Your task to perform on an android device: Open Maps and search for coffee Image 0: 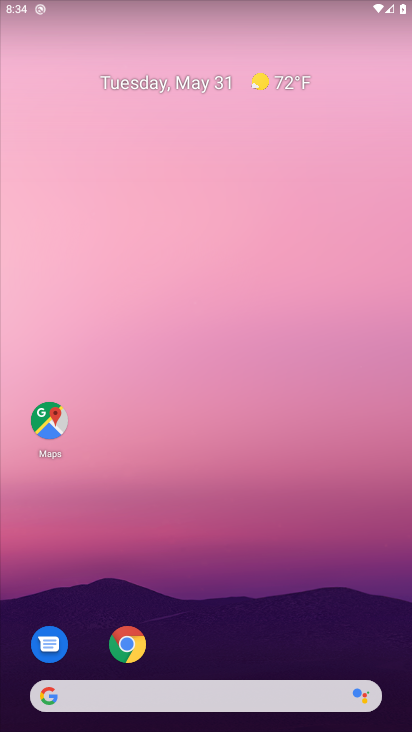
Step 0: press home button
Your task to perform on an android device: Open Maps and search for coffee Image 1: 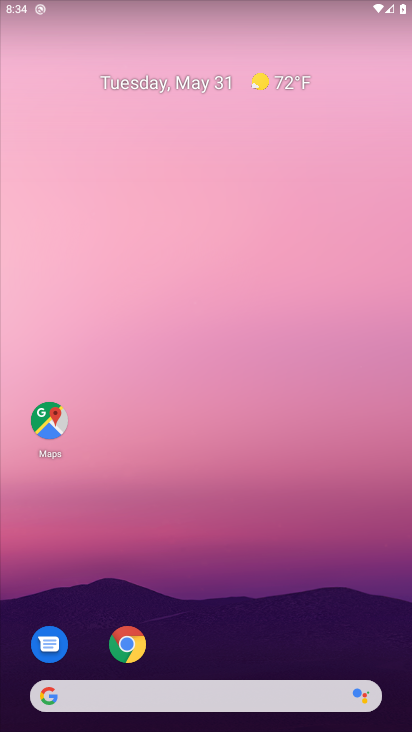
Step 1: click (43, 407)
Your task to perform on an android device: Open Maps and search for coffee Image 2: 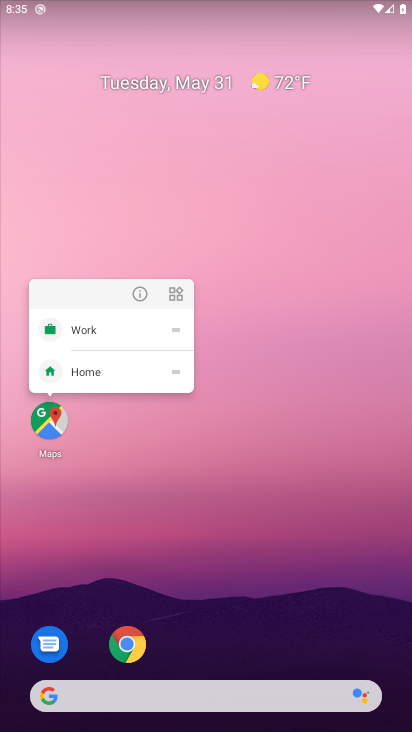
Step 2: click (49, 417)
Your task to perform on an android device: Open Maps and search for coffee Image 3: 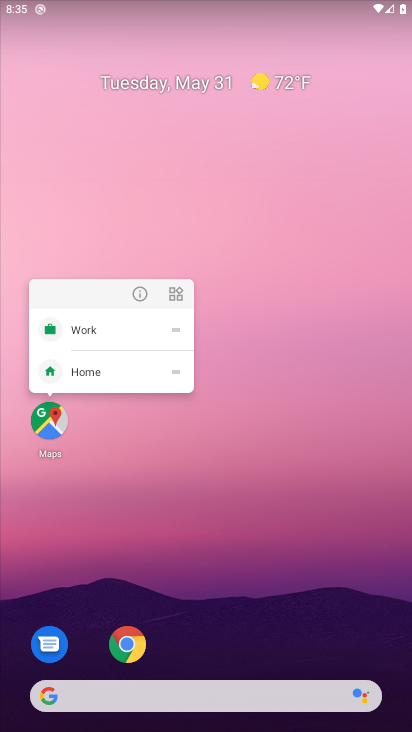
Step 3: click (49, 417)
Your task to perform on an android device: Open Maps and search for coffee Image 4: 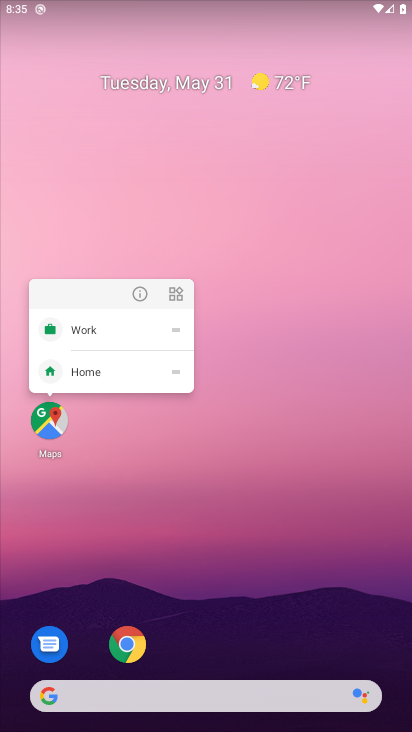
Step 4: click (49, 417)
Your task to perform on an android device: Open Maps and search for coffee Image 5: 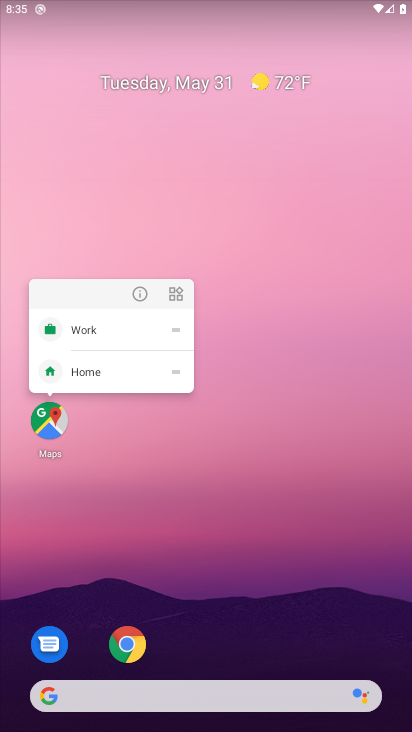
Step 5: click (49, 420)
Your task to perform on an android device: Open Maps and search for coffee Image 6: 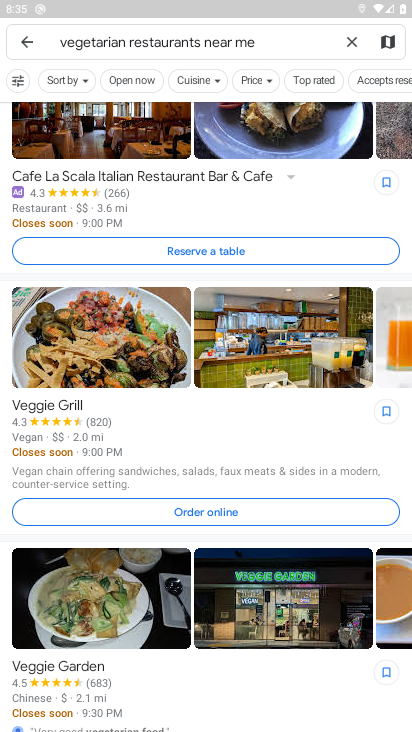
Step 6: click (350, 37)
Your task to perform on an android device: Open Maps and search for coffee Image 7: 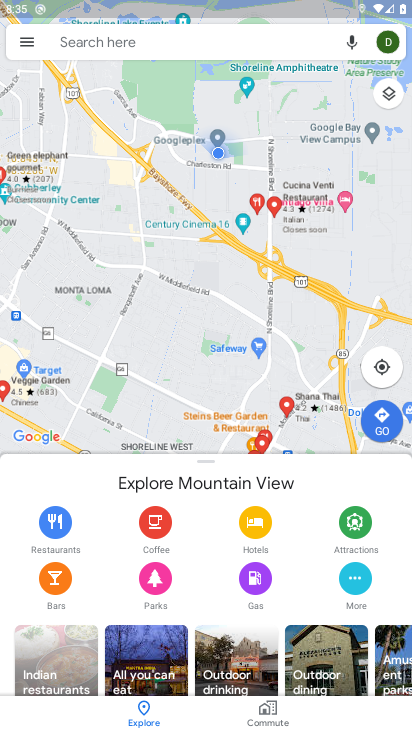
Step 7: click (110, 41)
Your task to perform on an android device: Open Maps and search for coffee Image 8: 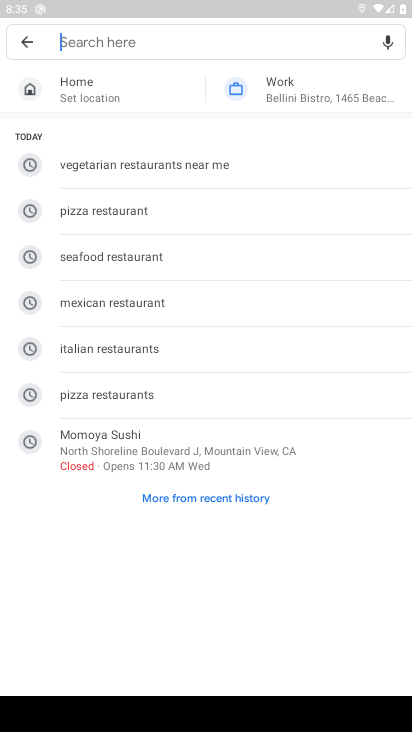
Step 8: type "coffee"
Your task to perform on an android device: Open Maps and search for coffee Image 9: 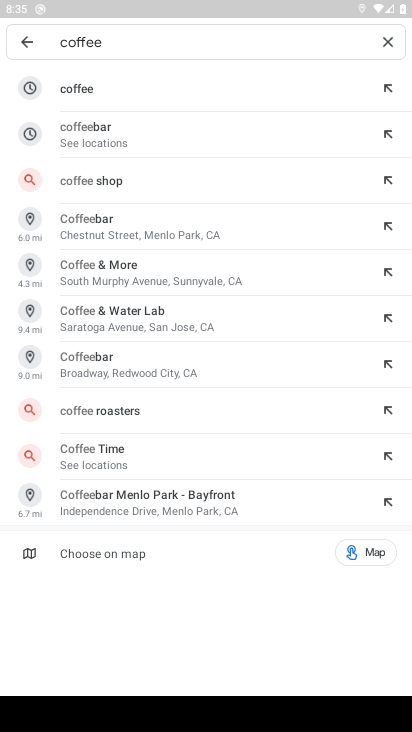
Step 9: click (108, 86)
Your task to perform on an android device: Open Maps and search for coffee Image 10: 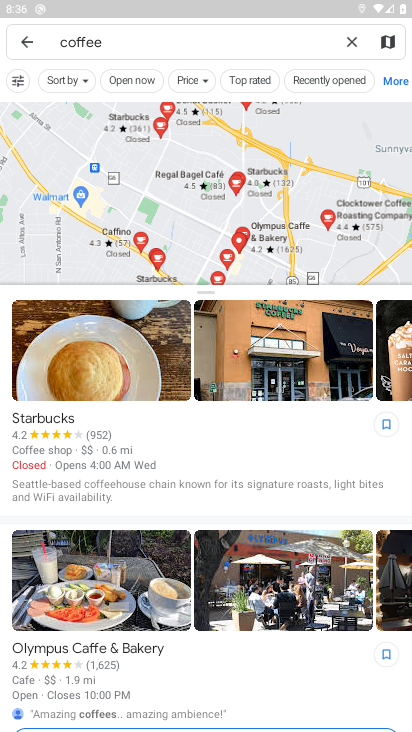
Step 10: task complete